Your task to perform on an android device: find which apps use the phone's location Image 0: 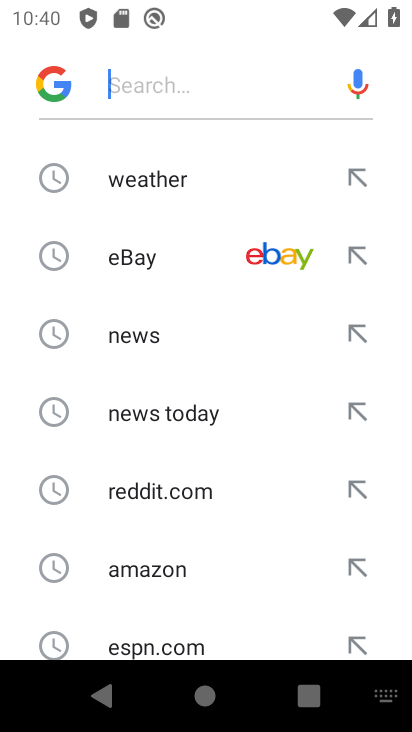
Step 0: press home button
Your task to perform on an android device: find which apps use the phone's location Image 1: 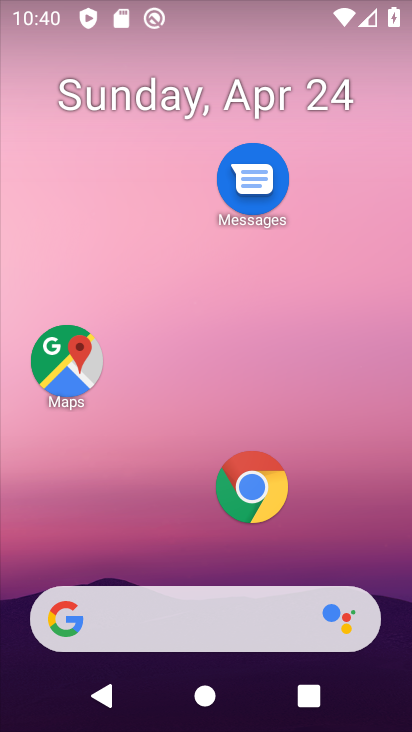
Step 1: drag from (168, 489) to (301, 0)
Your task to perform on an android device: find which apps use the phone's location Image 2: 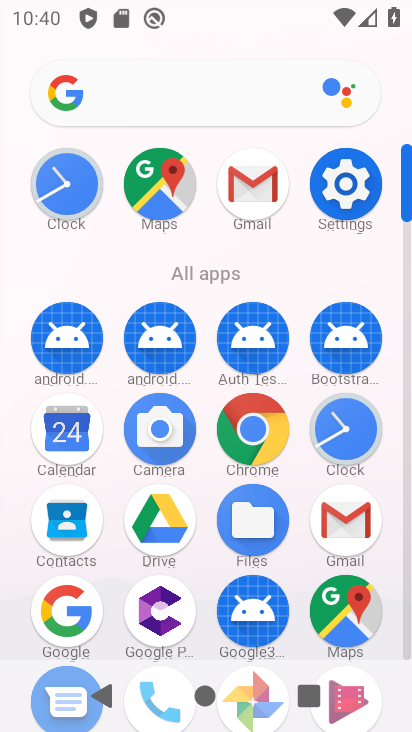
Step 2: click (361, 205)
Your task to perform on an android device: find which apps use the phone's location Image 3: 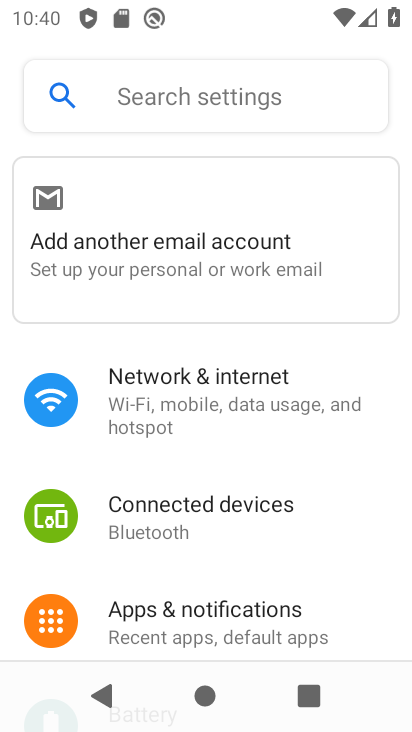
Step 3: drag from (156, 595) to (244, 106)
Your task to perform on an android device: find which apps use the phone's location Image 4: 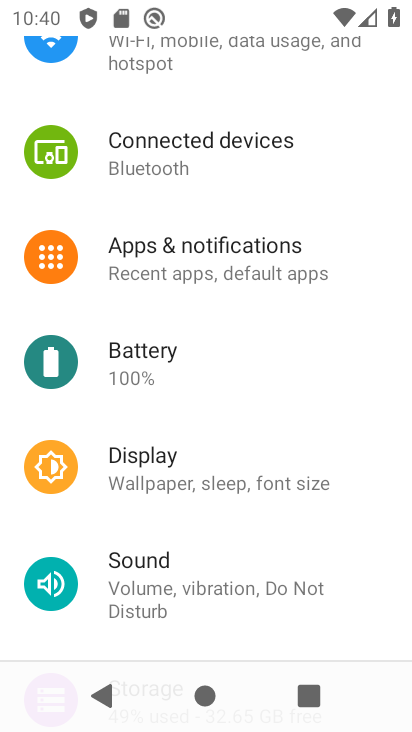
Step 4: drag from (156, 483) to (217, 91)
Your task to perform on an android device: find which apps use the phone's location Image 5: 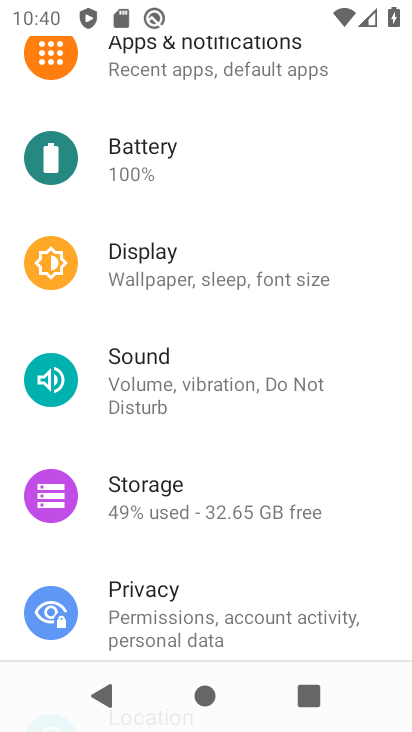
Step 5: drag from (127, 583) to (217, 22)
Your task to perform on an android device: find which apps use the phone's location Image 6: 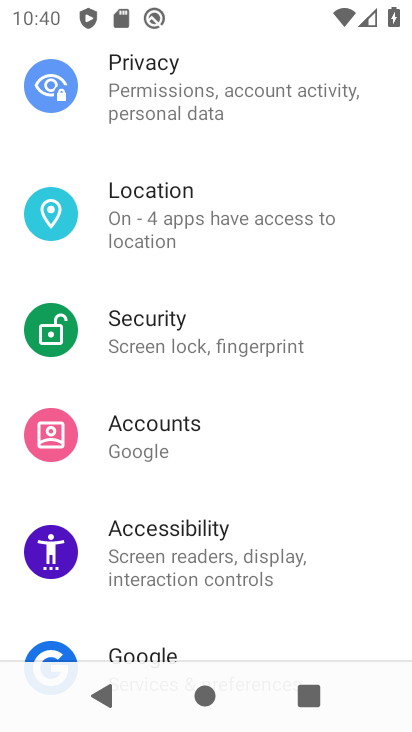
Step 6: click (197, 237)
Your task to perform on an android device: find which apps use the phone's location Image 7: 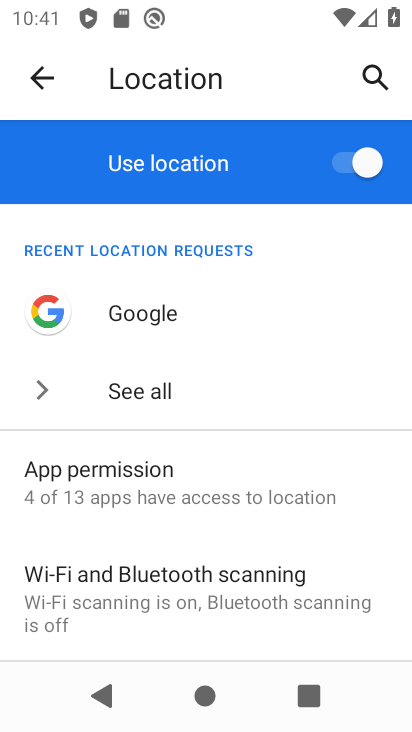
Step 7: click (118, 499)
Your task to perform on an android device: find which apps use the phone's location Image 8: 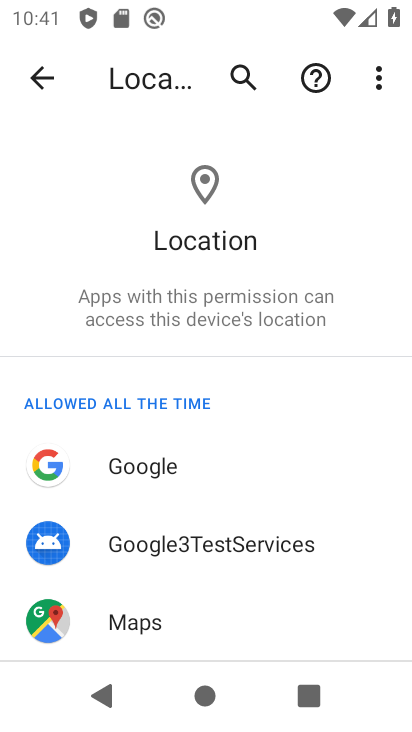
Step 8: task complete